Your task to perform on an android device: Search for "razer deathadder" on amazon, select the first entry, add it to the cart, then select checkout. Image 0: 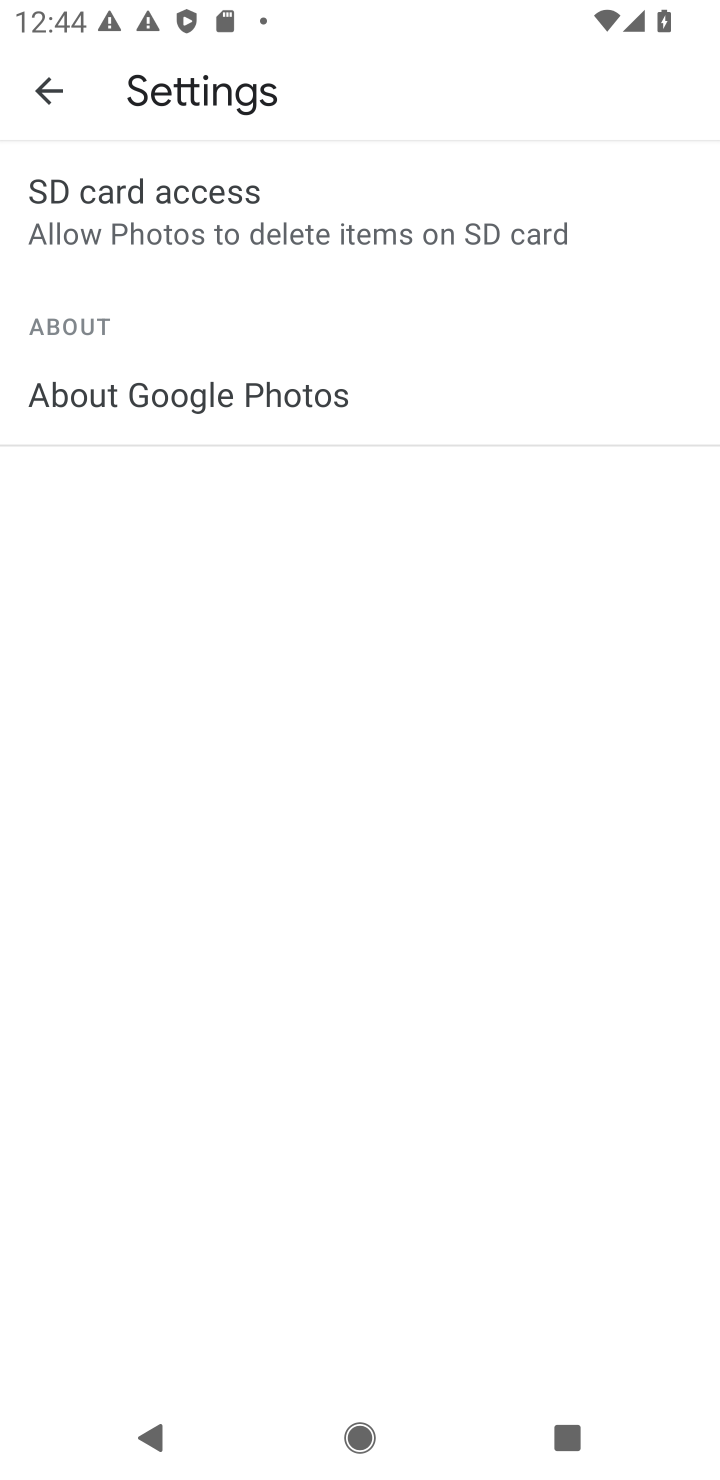
Step 0: press home button
Your task to perform on an android device: Search for "razer deathadder" on amazon, select the first entry, add it to the cart, then select checkout. Image 1: 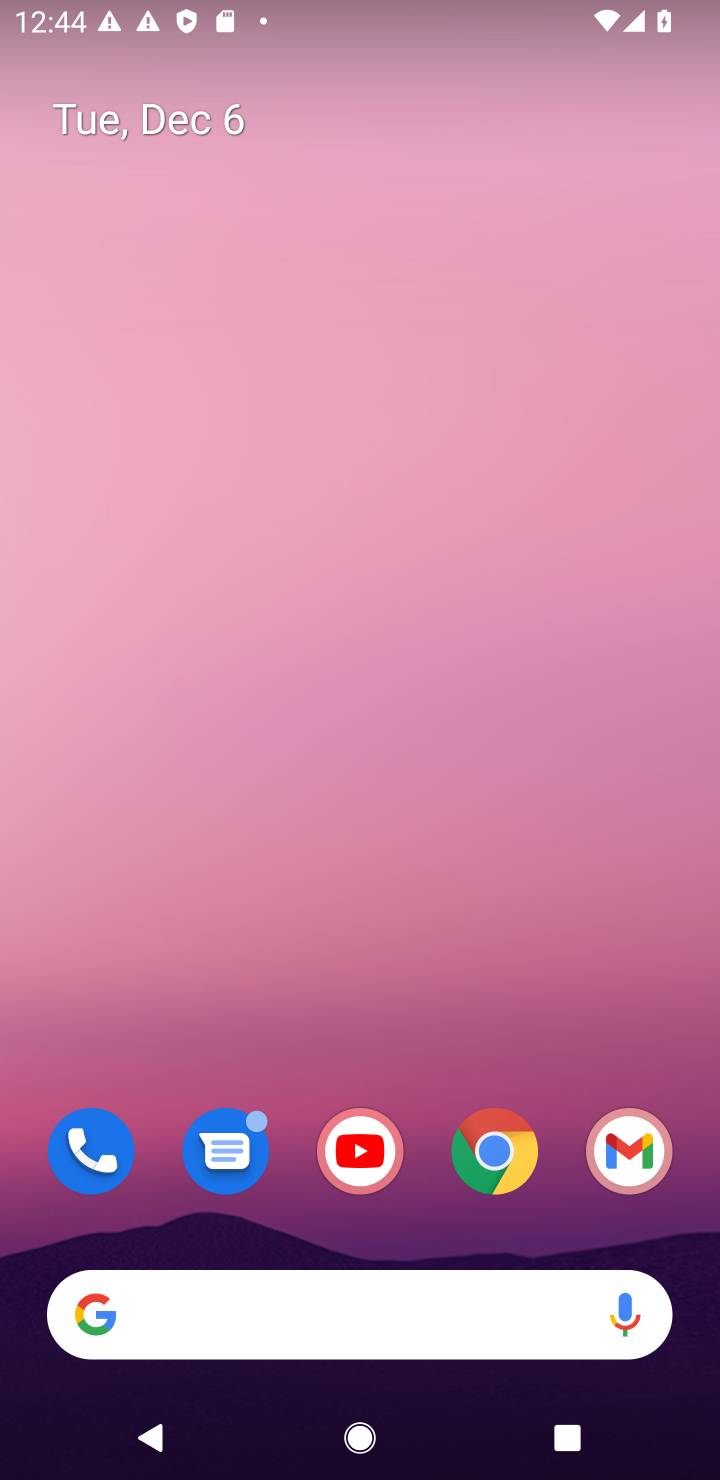
Step 1: click (495, 1160)
Your task to perform on an android device: Search for "razer deathadder" on amazon, select the first entry, add it to the cart, then select checkout. Image 2: 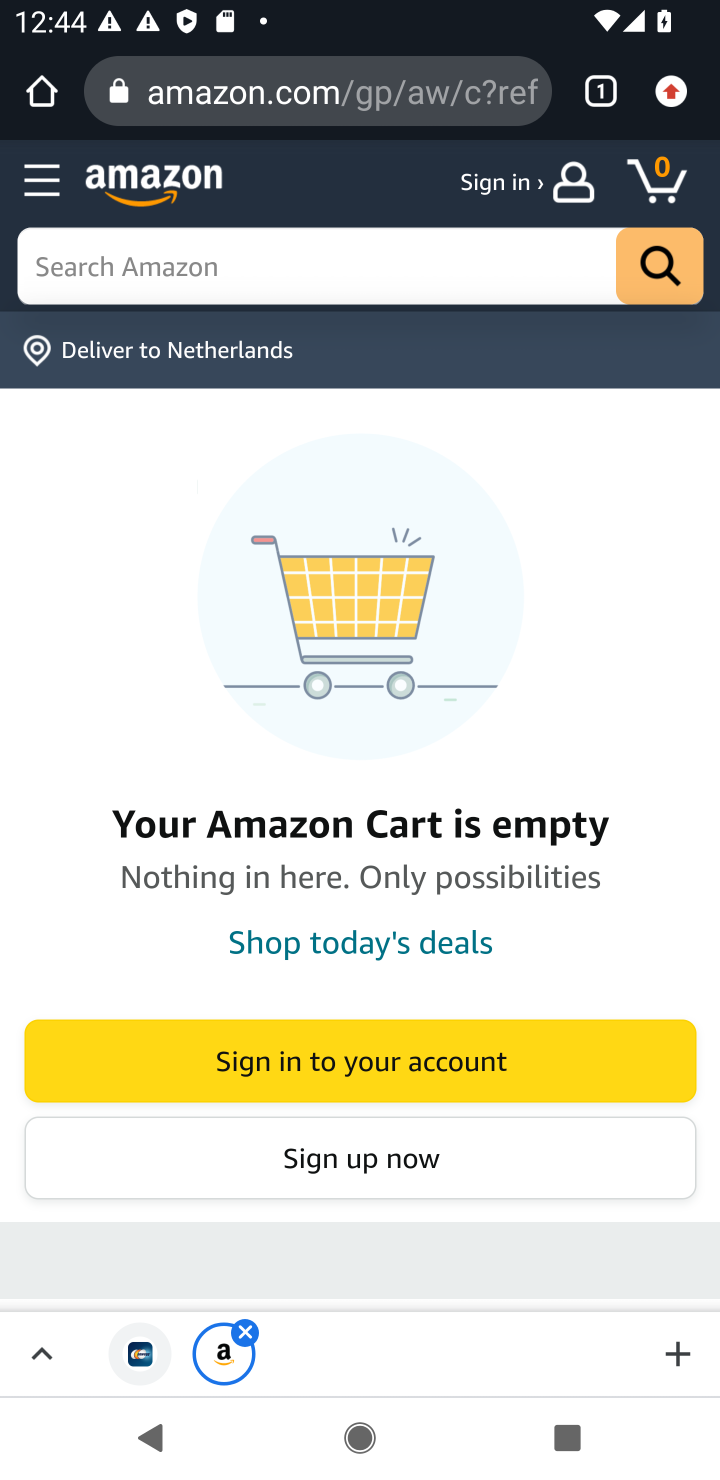
Step 2: click (91, 248)
Your task to perform on an android device: Search for "razer deathadder" on amazon, select the first entry, add it to the cart, then select checkout. Image 3: 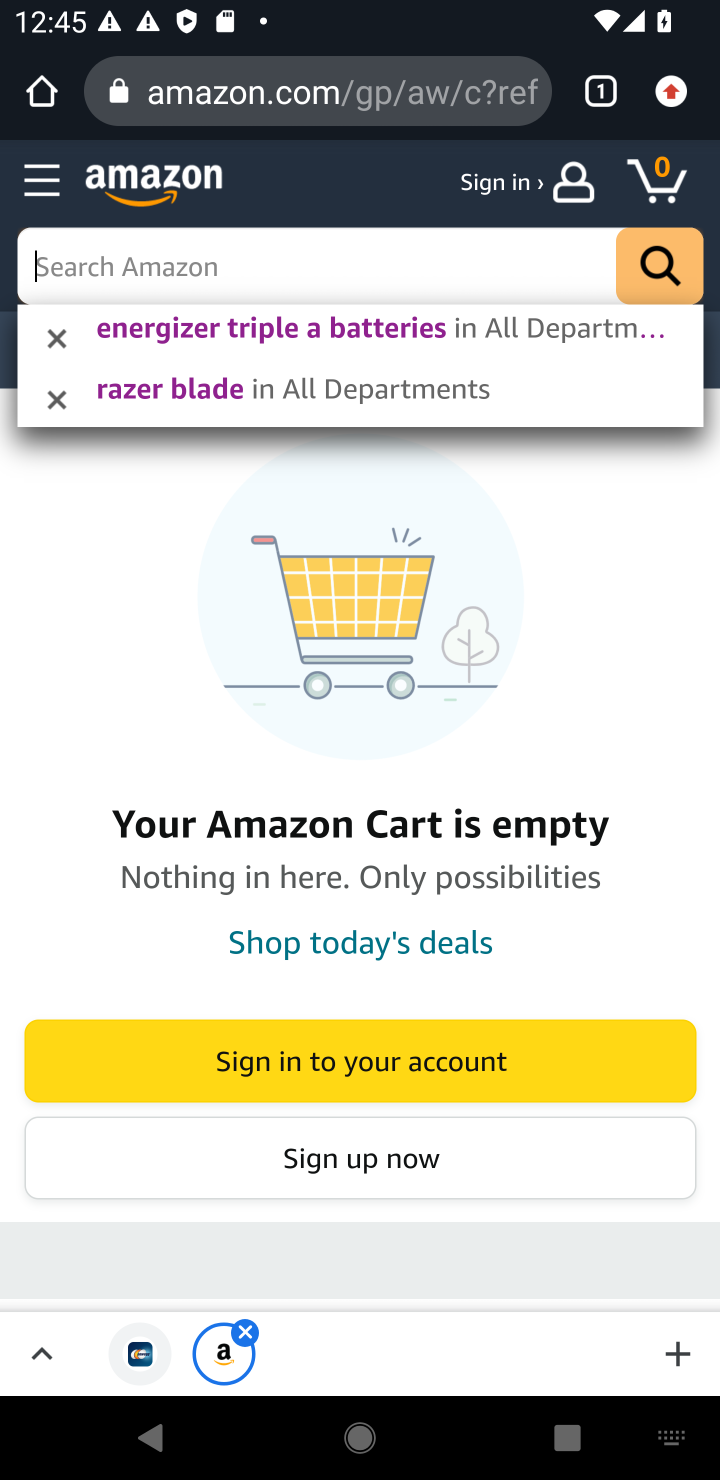
Step 3: type "razer deathadder"
Your task to perform on an android device: Search for "razer deathadder" on amazon, select the first entry, add it to the cart, then select checkout. Image 4: 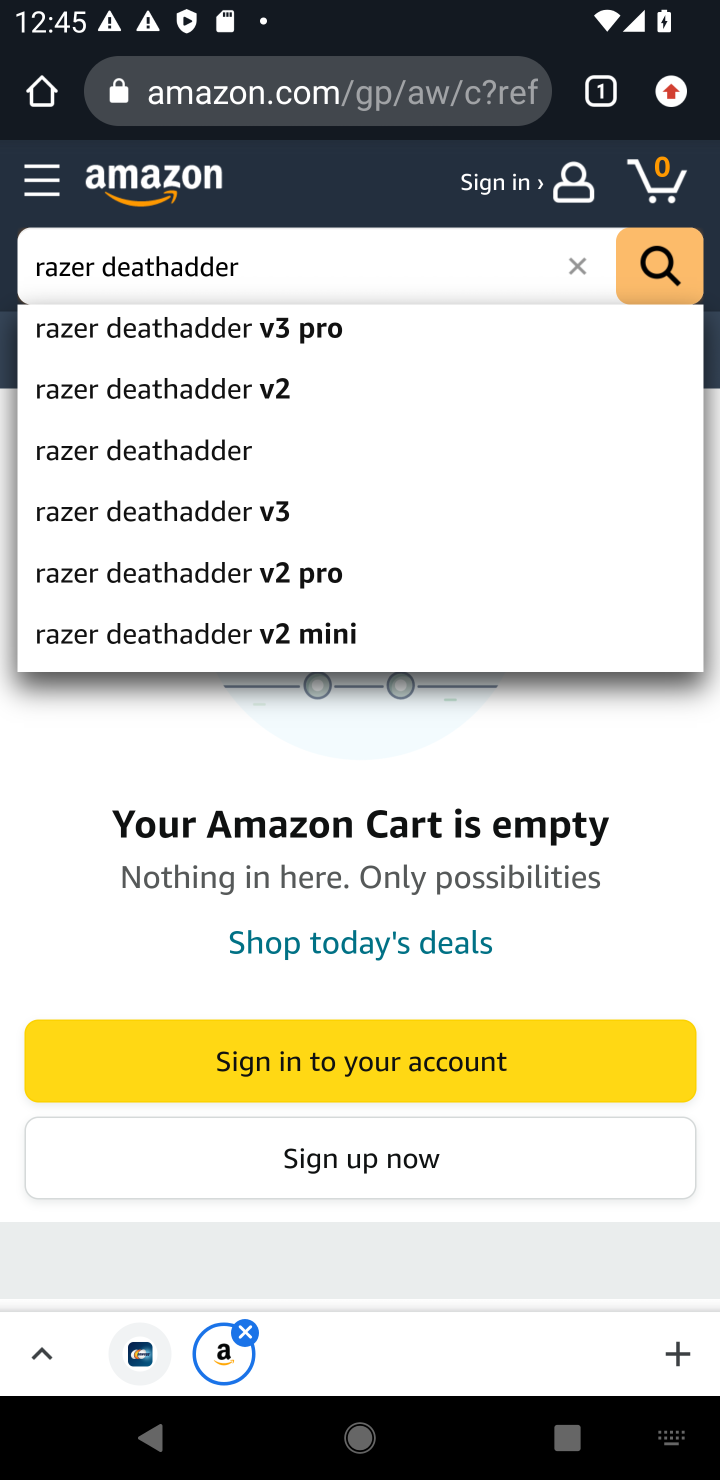
Step 4: click (221, 459)
Your task to perform on an android device: Search for "razer deathadder" on amazon, select the first entry, add it to the cart, then select checkout. Image 5: 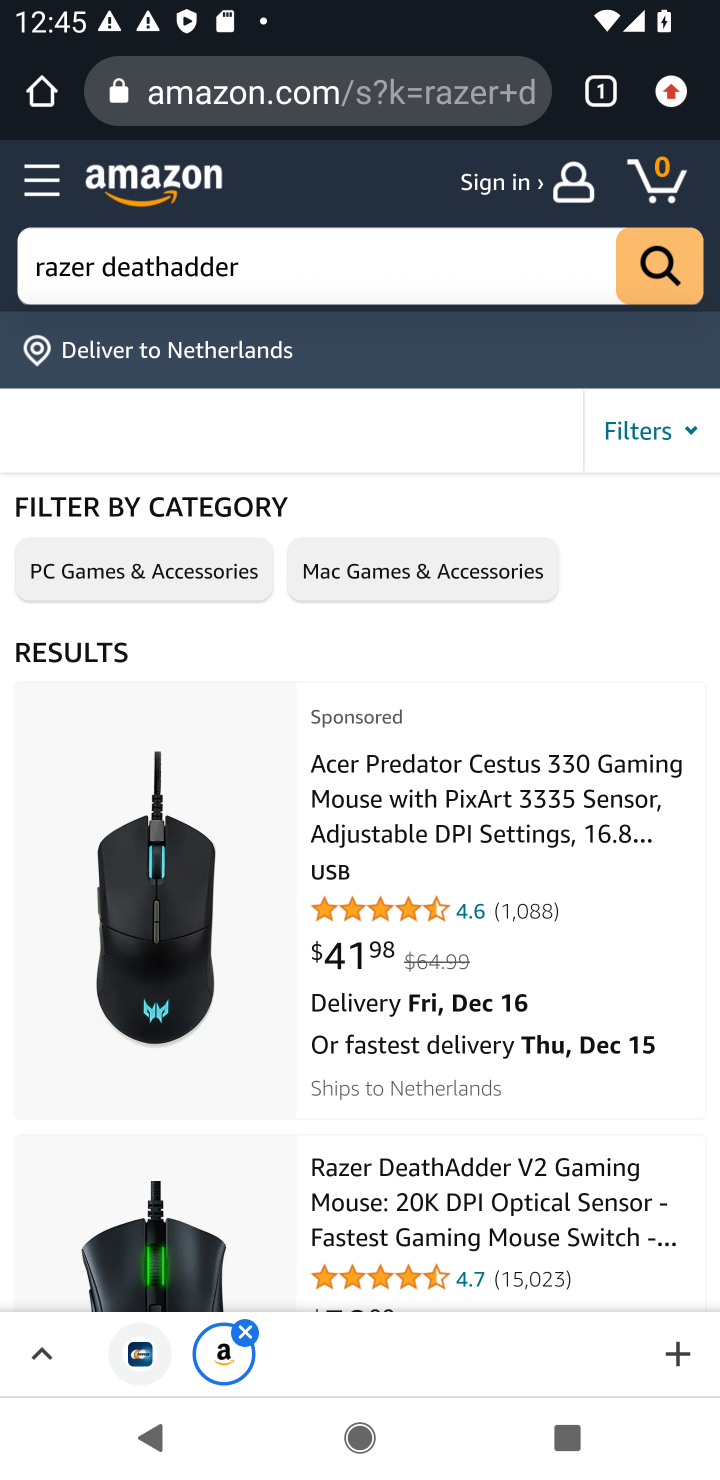
Step 5: task complete